Your task to perform on an android device: Open eBay Image 0: 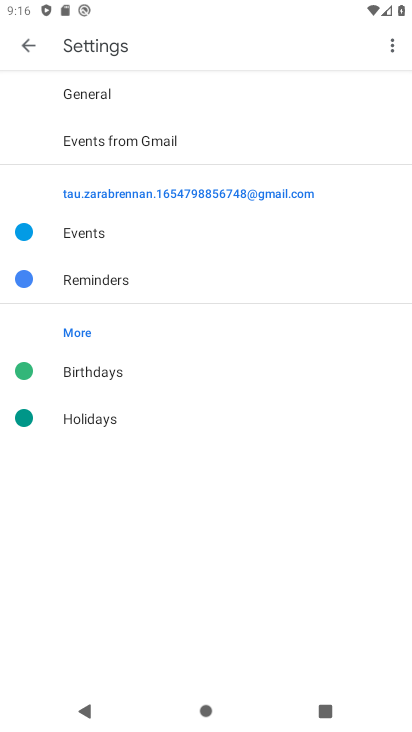
Step 0: press home button
Your task to perform on an android device: Open eBay Image 1: 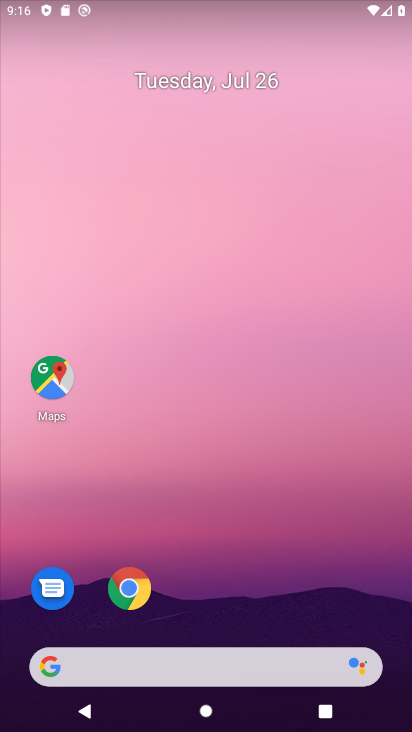
Step 1: drag from (130, 649) to (132, 282)
Your task to perform on an android device: Open eBay Image 2: 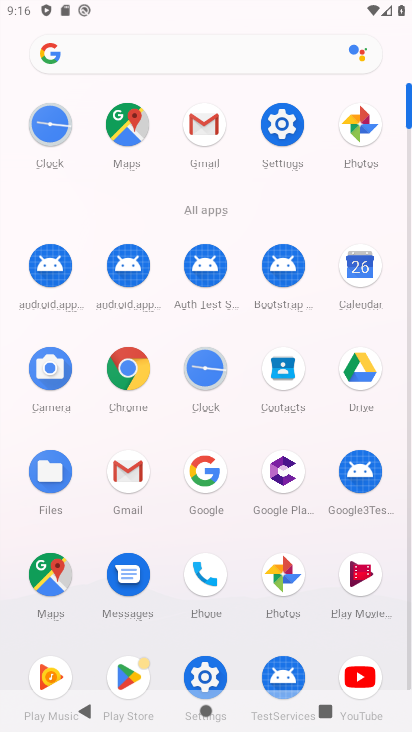
Step 2: click (217, 477)
Your task to perform on an android device: Open eBay Image 3: 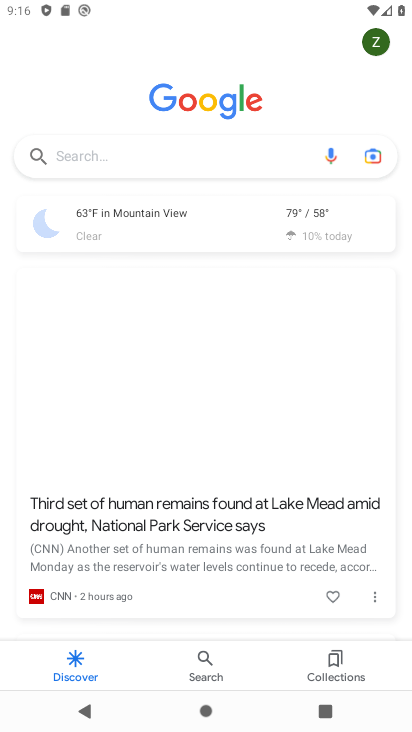
Step 3: click (122, 158)
Your task to perform on an android device: Open eBay Image 4: 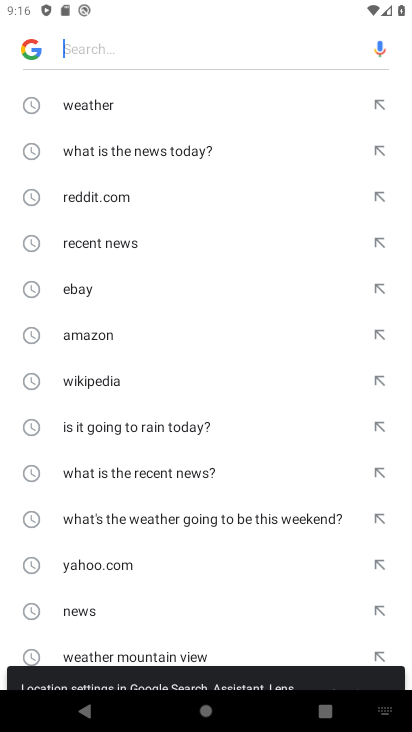
Step 4: click (99, 293)
Your task to perform on an android device: Open eBay Image 5: 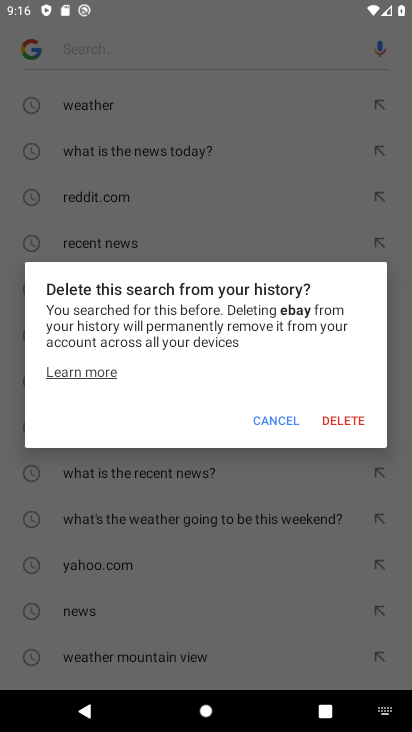
Step 5: click (291, 425)
Your task to perform on an android device: Open eBay Image 6: 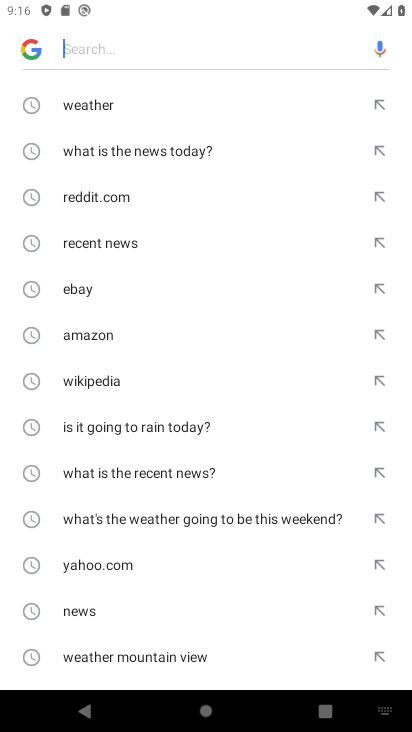
Step 6: click (82, 286)
Your task to perform on an android device: Open eBay Image 7: 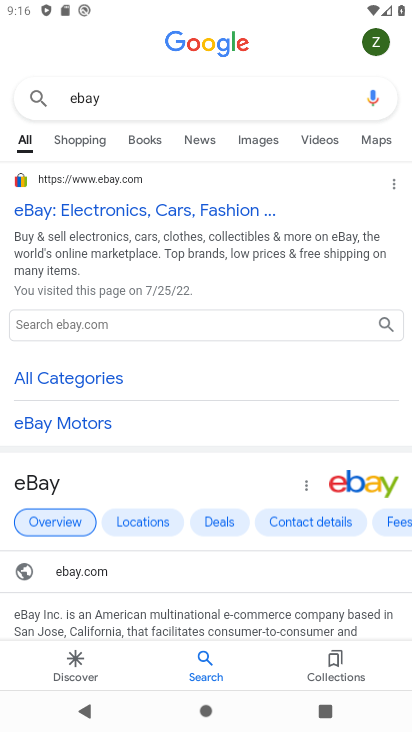
Step 7: click (79, 210)
Your task to perform on an android device: Open eBay Image 8: 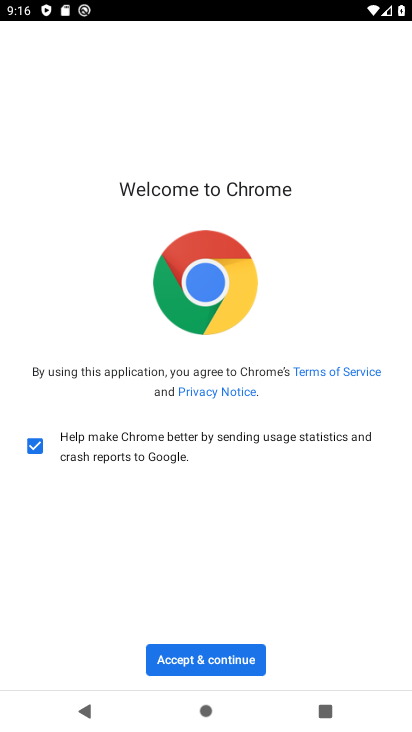
Step 8: click (212, 650)
Your task to perform on an android device: Open eBay Image 9: 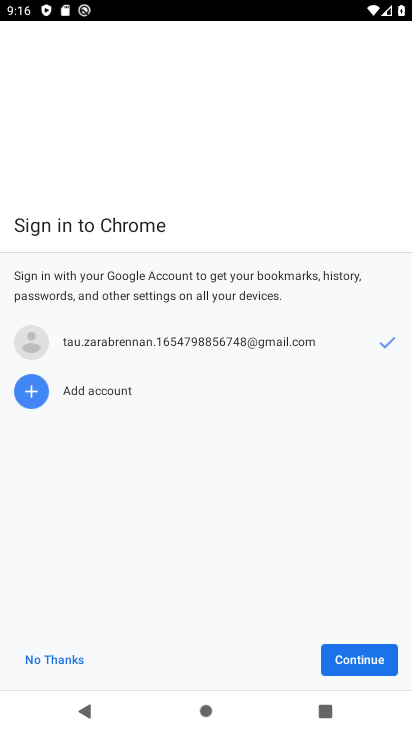
Step 9: click (339, 660)
Your task to perform on an android device: Open eBay Image 10: 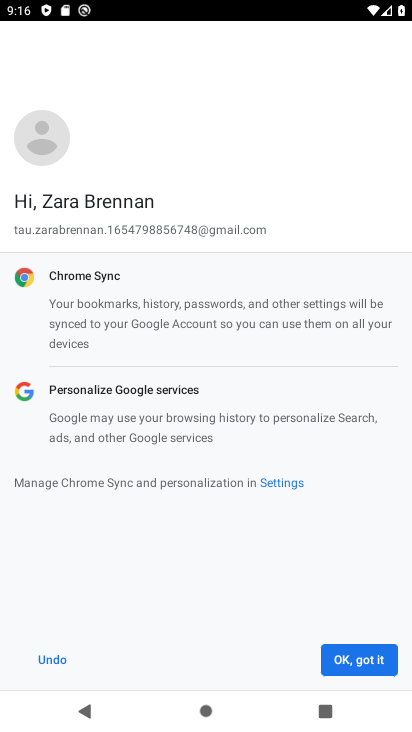
Step 10: click (339, 660)
Your task to perform on an android device: Open eBay Image 11: 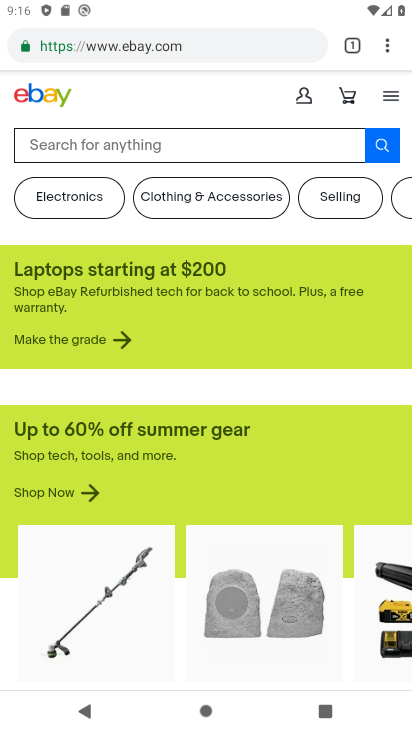
Step 11: task complete